Your task to perform on an android device: Open Google Chrome and open the bookmarks view Image 0: 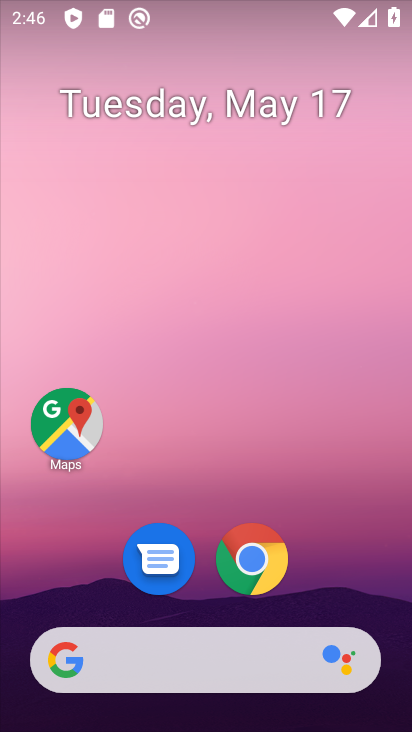
Step 0: click (267, 558)
Your task to perform on an android device: Open Google Chrome and open the bookmarks view Image 1: 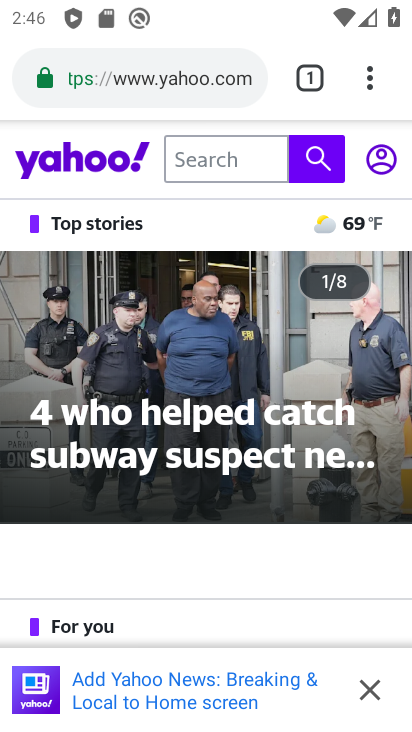
Step 1: click (371, 63)
Your task to perform on an android device: Open Google Chrome and open the bookmarks view Image 2: 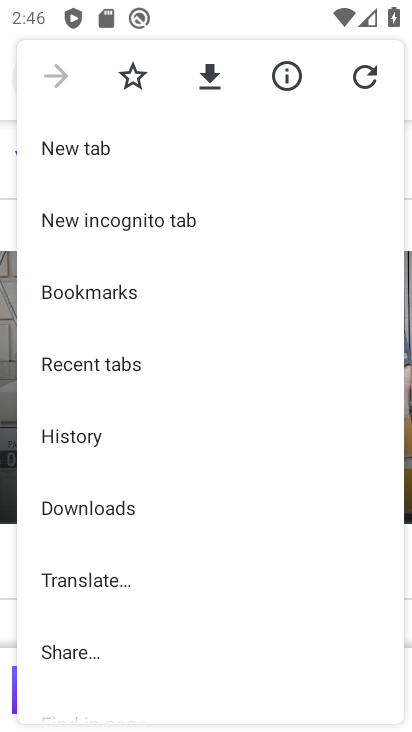
Step 2: click (271, 290)
Your task to perform on an android device: Open Google Chrome and open the bookmarks view Image 3: 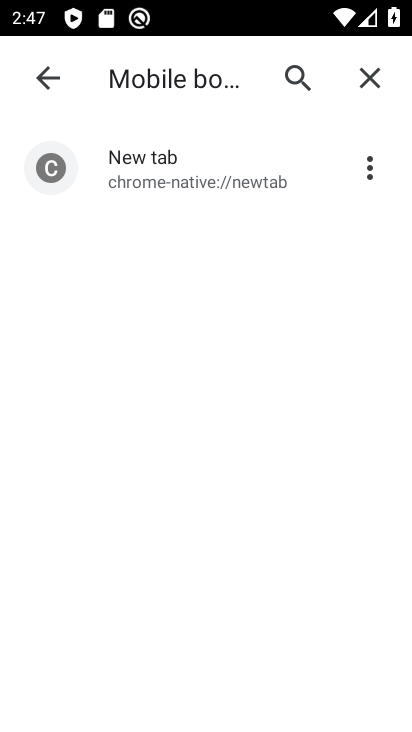
Step 3: task complete